Your task to perform on an android device: Is it going to rain tomorrow? Image 0: 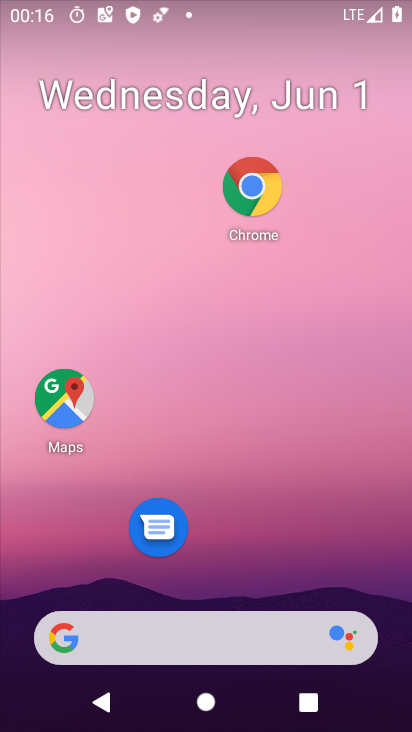
Step 0: drag from (204, 520) to (216, 154)
Your task to perform on an android device: Is it going to rain tomorrow? Image 1: 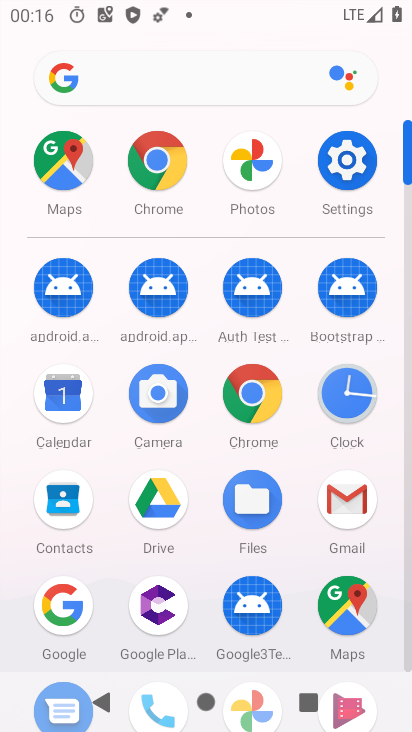
Step 1: drag from (191, 562) to (198, 228)
Your task to perform on an android device: Is it going to rain tomorrow? Image 2: 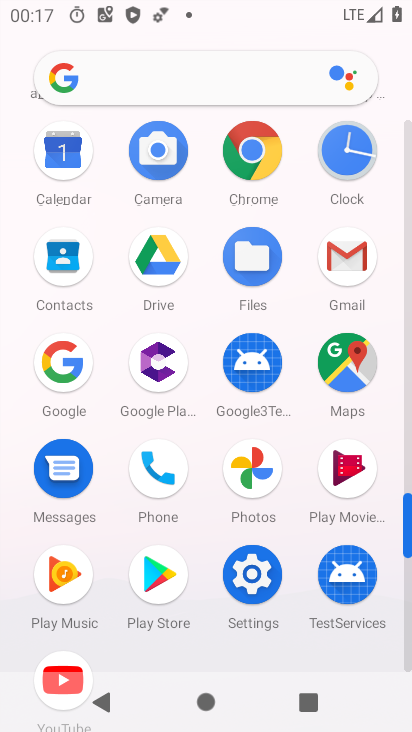
Step 2: click (153, 70)
Your task to perform on an android device: Is it going to rain tomorrow? Image 3: 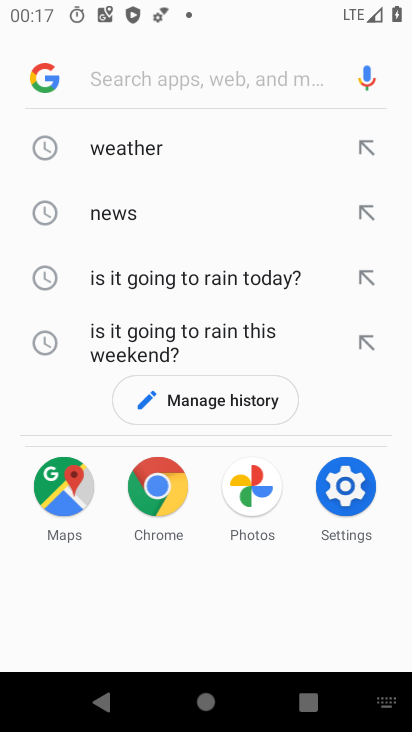
Step 3: type "rain tomorrow?"
Your task to perform on an android device: Is it going to rain tomorrow? Image 4: 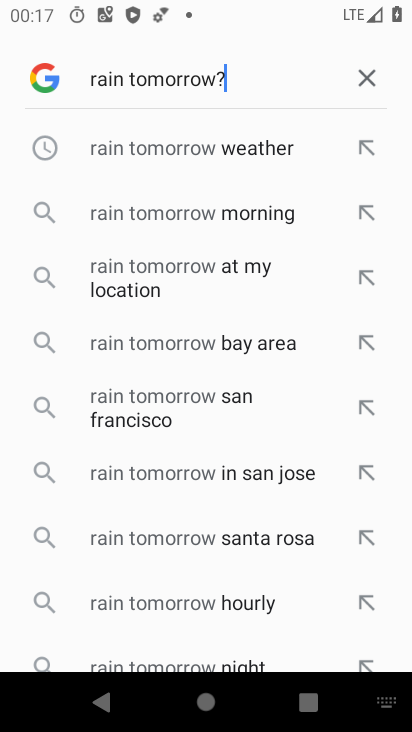
Step 4: type ""
Your task to perform on an android device: Is it going to rain tomorrow? Image 5: 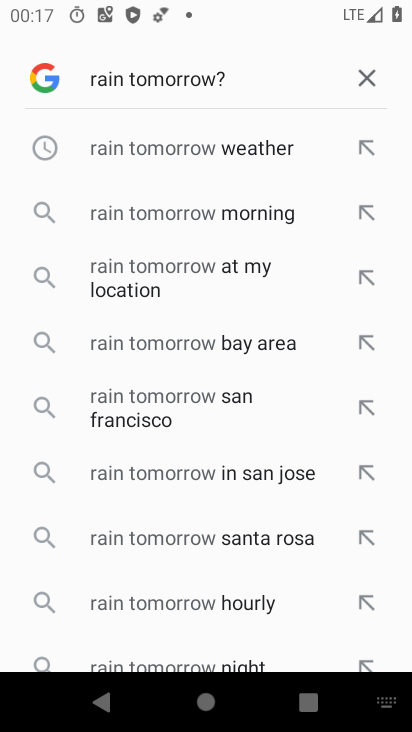
Step 5: click (134, 159)
Your task to perform on an android device: Is it going to rain tomorrow? Image 6: 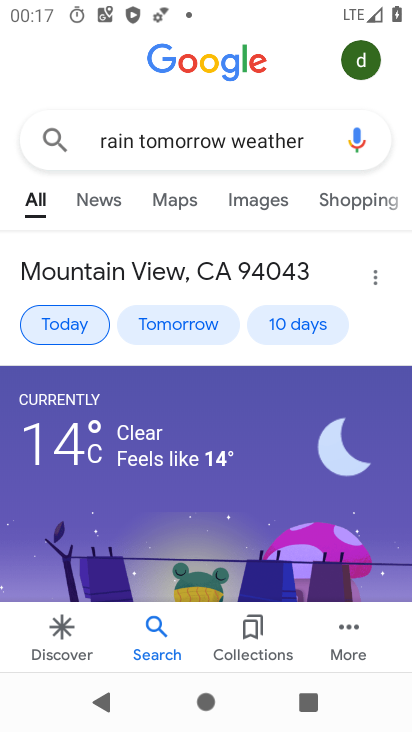
Step 6: task complete